Your task to perform on an android device: Open calendar and show me the third week of next month Image 0: 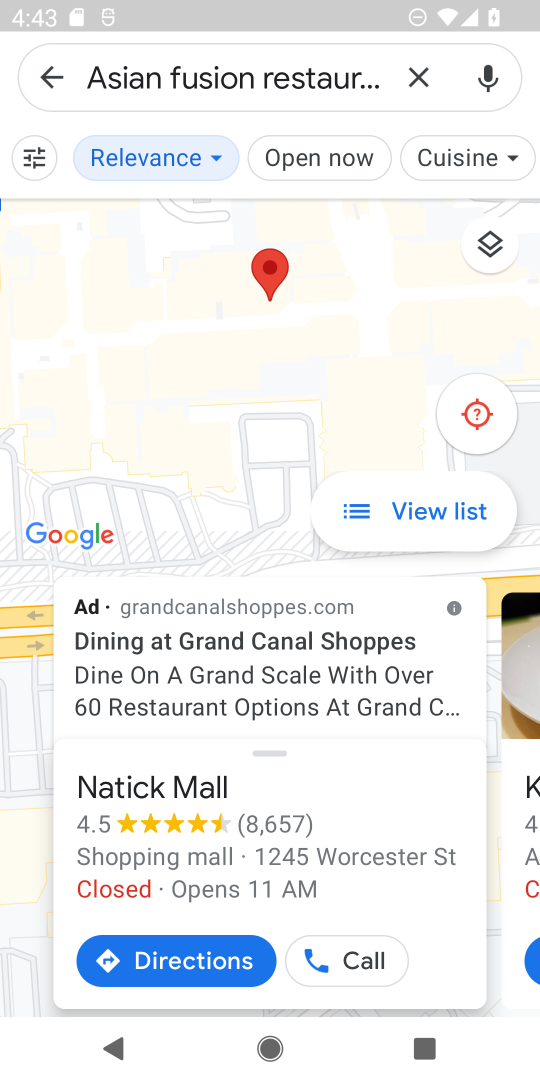
Step 0: press home button
Your task to perform on an android device: Open calendar and show me the third week of next month Image 1: 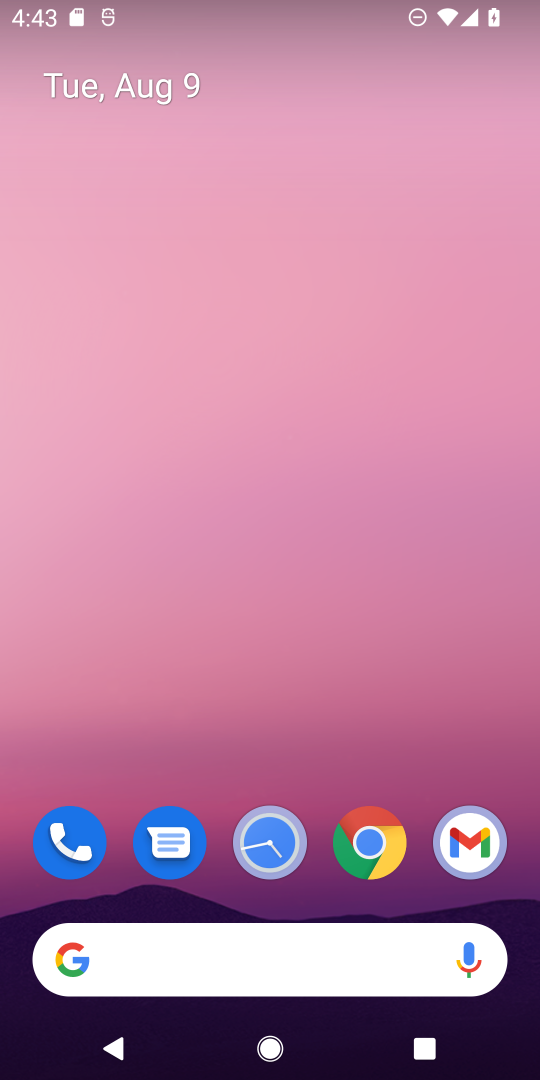
Step 1: drag from (388, 969) to (321, 83)
Your task to perform on an android device: Open calendar and show me the third week of next month Image 2: 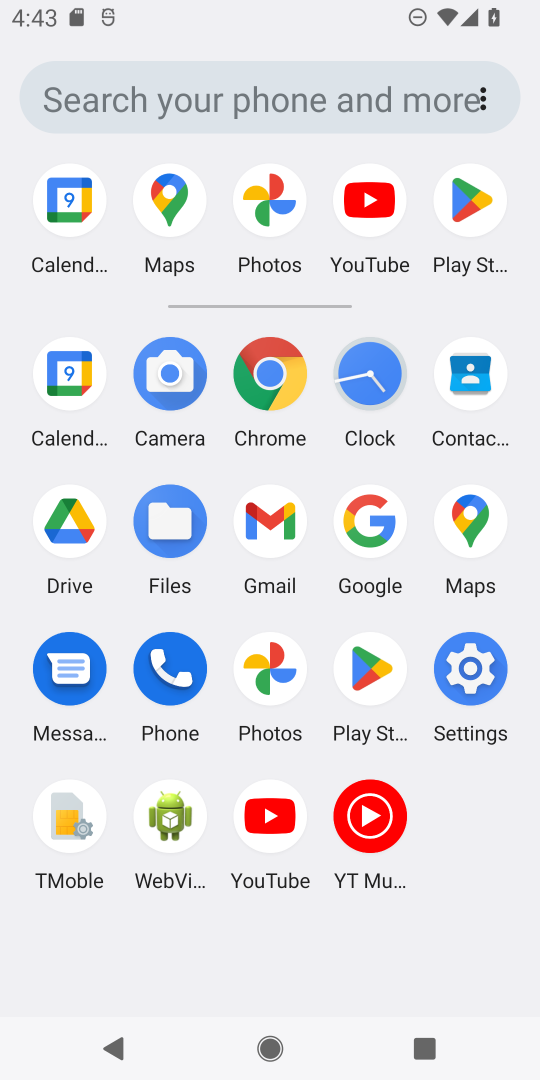
Step 2: click (48, 396)
Your task to perform on an android device: Open calendar and show me the third week of next month Image 3: 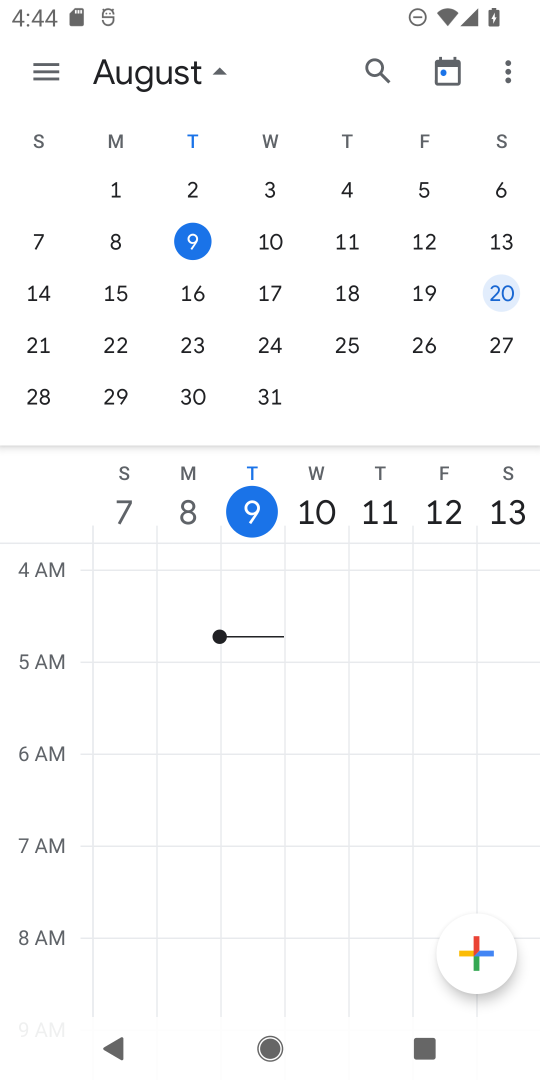
Step 3: click (429, 284)
Your task to perform on an android device: Open calendar and show me the third week of next month Image 4: 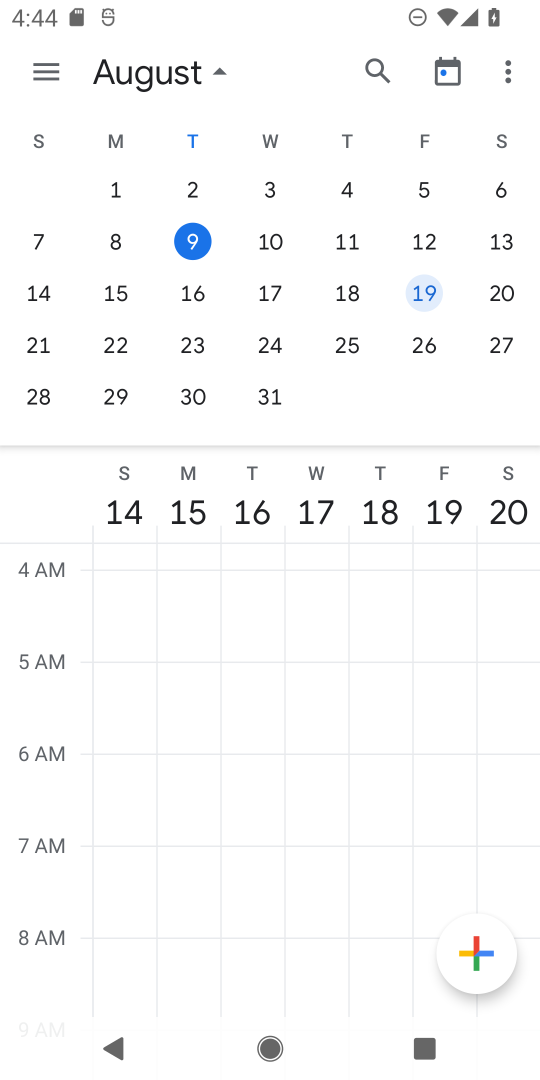
Step 4: task complete